Your task to perform on an android device: turn notification dots on Image 0: 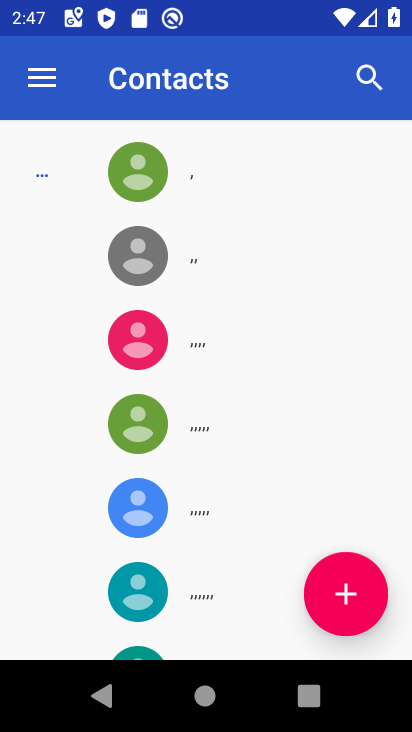
Step 0: press home button
Your task to perform on an android device: turn notification dots on Image 1: 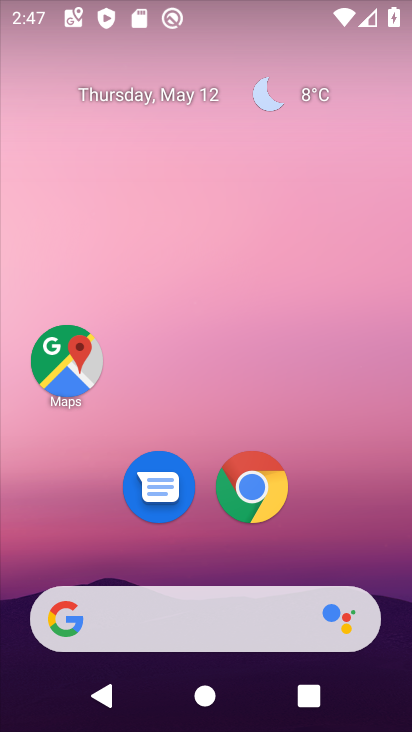
Step 1: drag from (364, 498) to (320, 74)
Your task to perform on an android device: turn notification dots on Image 2: 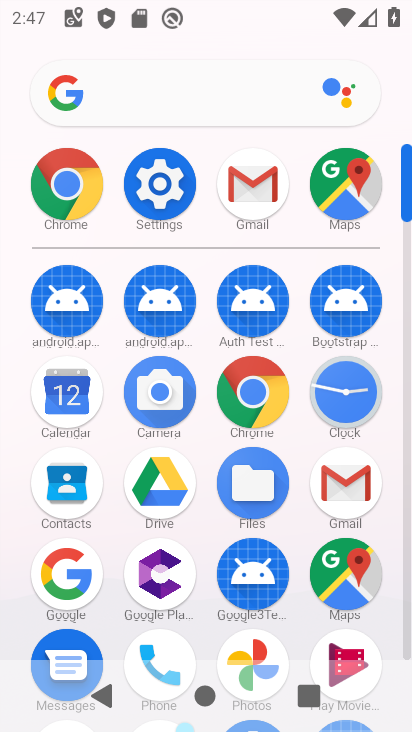
Step 2: click (167, 177)
Your task to perform on an android device: turn notification dots on Image 3: 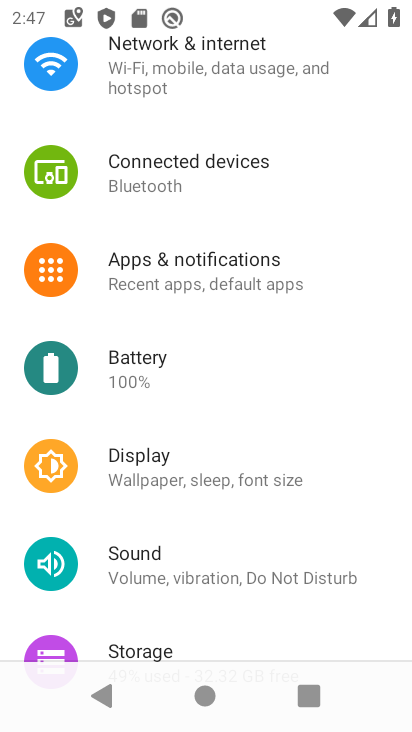
Step 3: drag from (259, 204) to (251, 353)
Your task to perform on an android device: turn notification dots on Image 4: 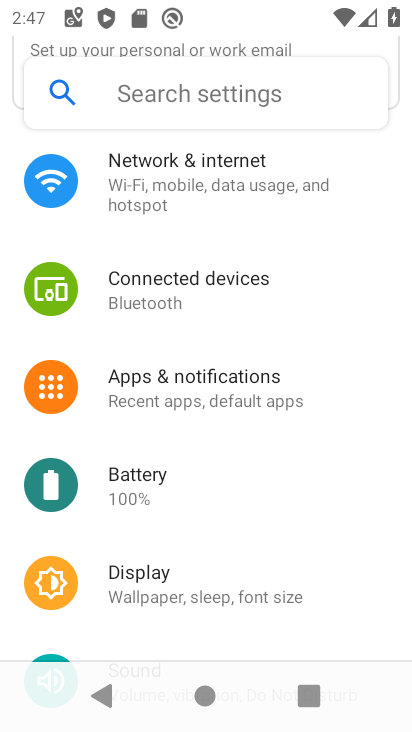
Step 4: click (205, 400)
Your task to perform on an android device: turn notification dots on Image 5: 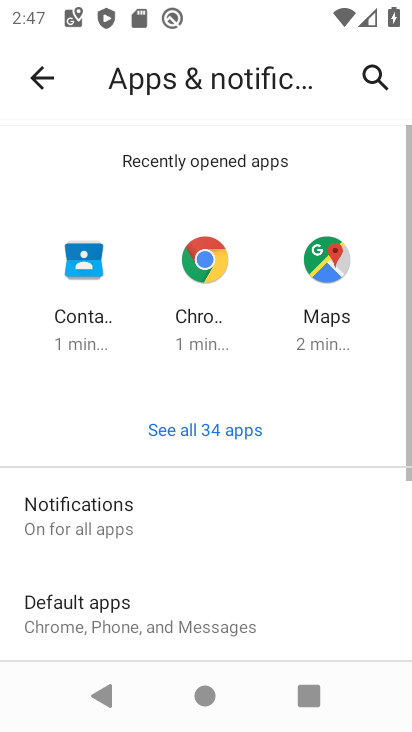
Step 5: drag from (176, 576) to (266, 230)
Your task to perform on an android device: turn notification dots on Image 6: 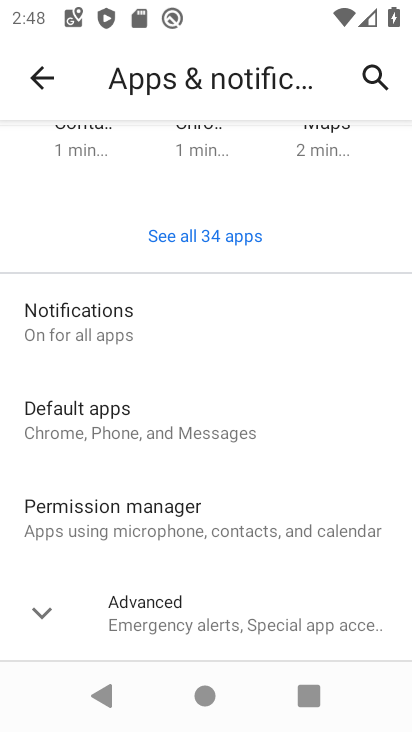
Step 6: click (119, 332)
Your task to perform on an android device: turn notification dots on Image 7: 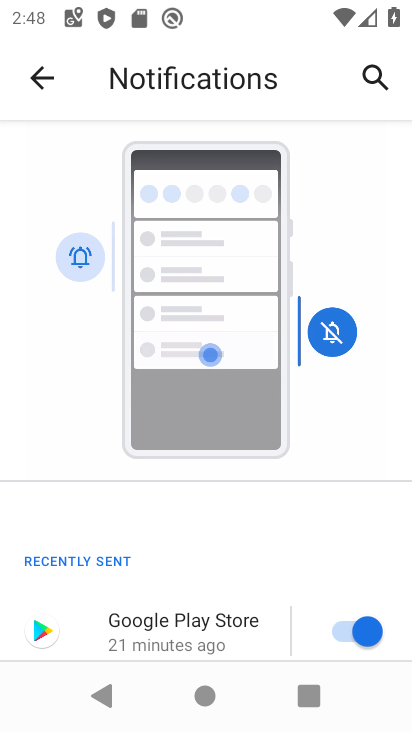
Step 7: drag from (209, 586) to (221, 190)
Your task to perform on an android device: turn notification dots on Image 8: 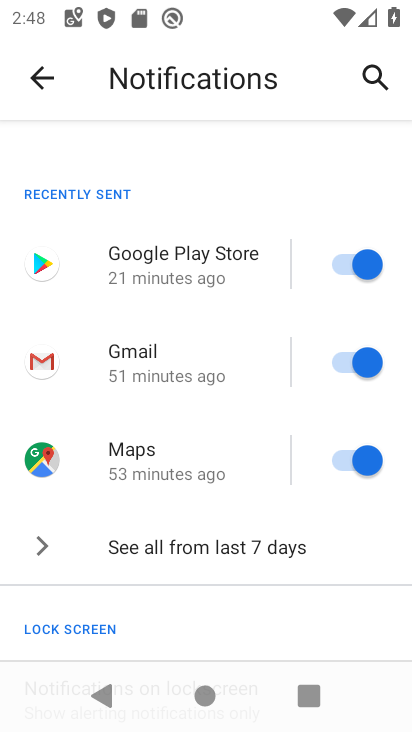
Step 8: drag from (179, 602) to (220, 249)
Your task to perform on an android device: turn notification dots on Image 9: 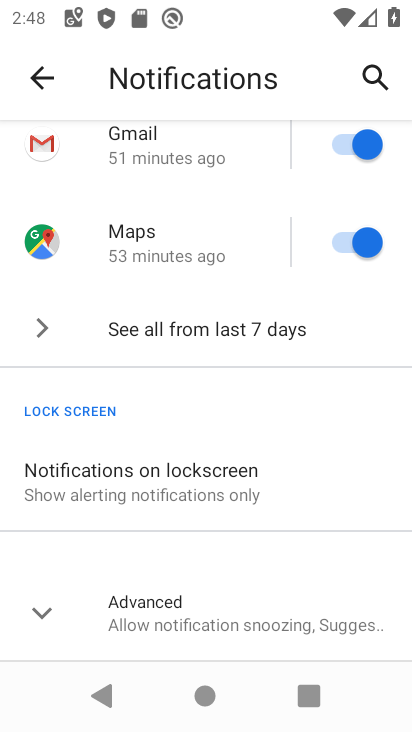
Step 9: click (190, 622)
Your task to perform on an android device: turn notification dots on Image 10: 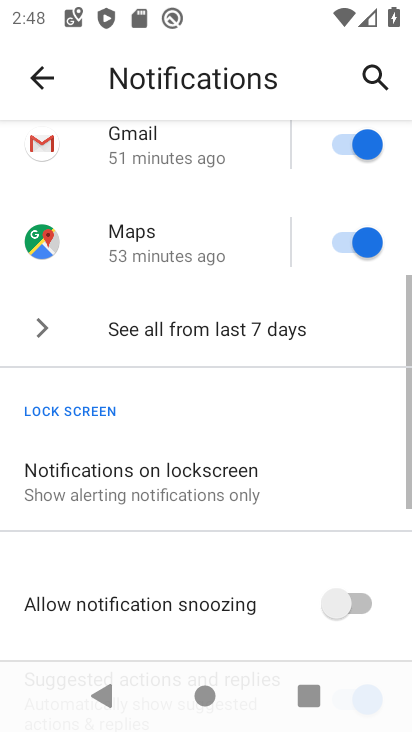
Step 10: task complete